Your task to perform on an android device: manage bookmarks in the chrome app Image 0: 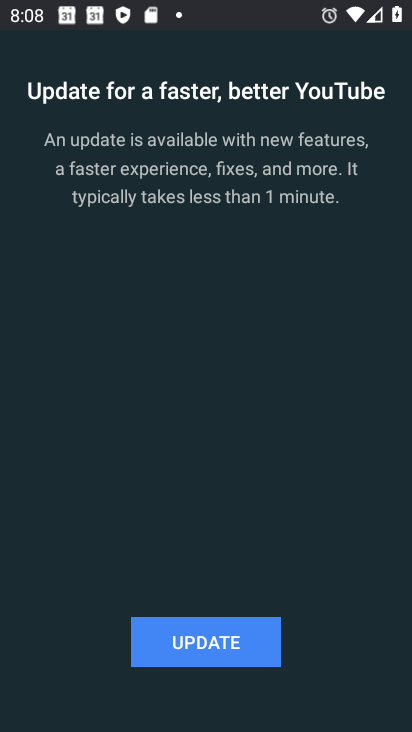
Step 0: press home button
Your task to perform on an android device: manage bookmarks in the chrome app Image 1: 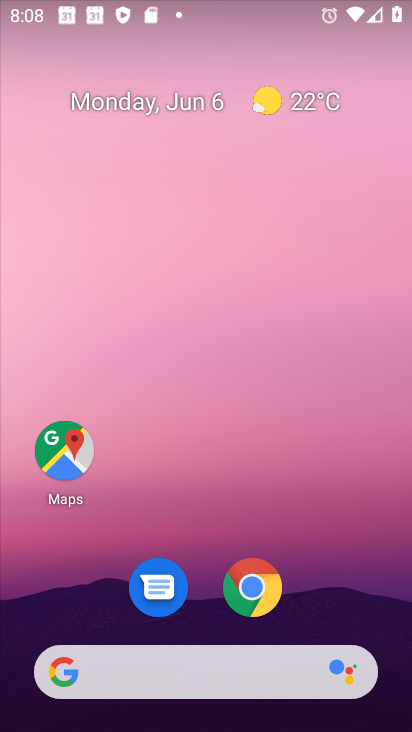
Step 1: click (244, 388)
Your task to perform on an android device: manage bookmarks in the chrome app Image 2: 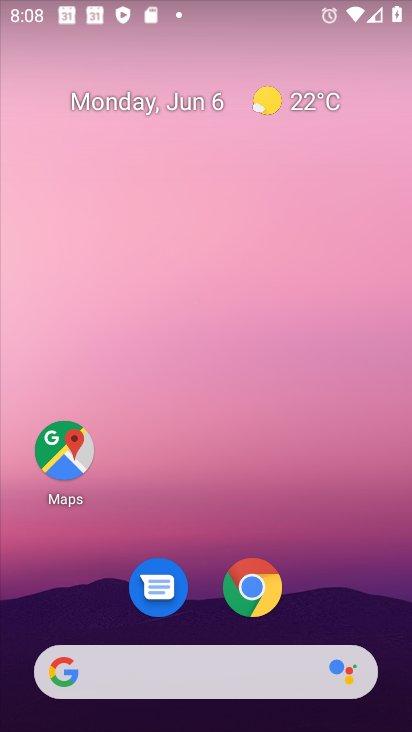
Step 2: drag from (201, 657) to (173, 232)
Your task to perform on an android device: manage bookmarks in the chrome app Image 3: 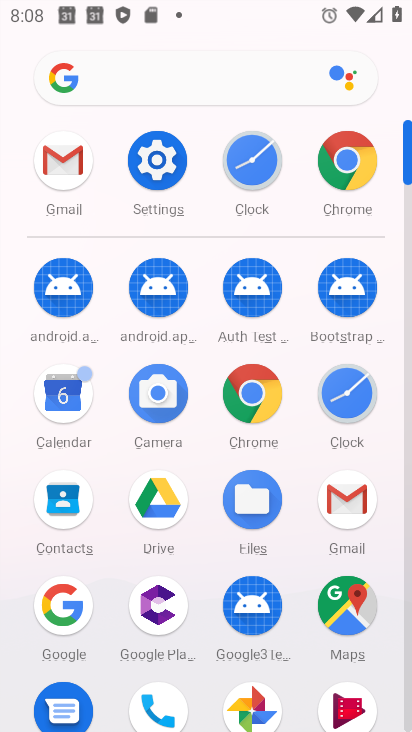
Step 3: click (257, 402)
Your task to perform on an android device: manage bookmarks in the chrome app Image 4: 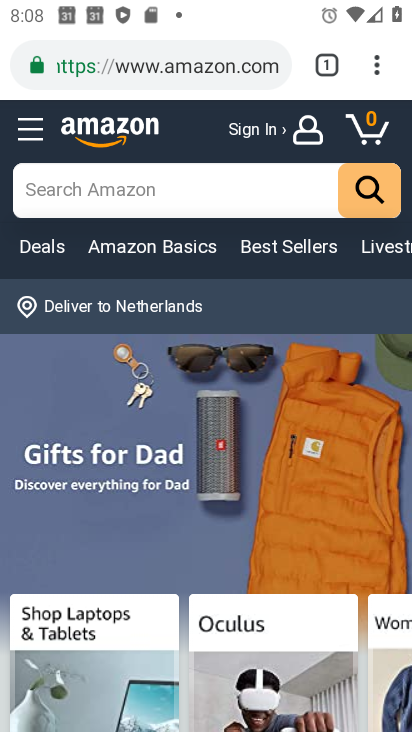
Step 4: click (379, 56)
Your task to perform on an android device: manage bookmarks in the chrome app Image 5: 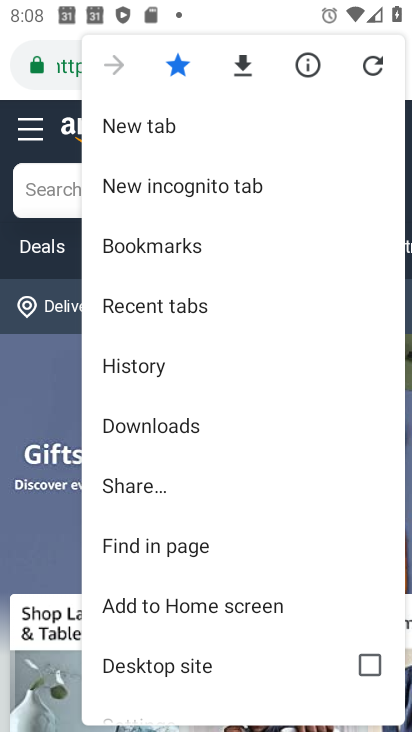
Step 5: click (119, 250)
Your task to perform on an android device: manage bookmarks in the chrome app Image 6: 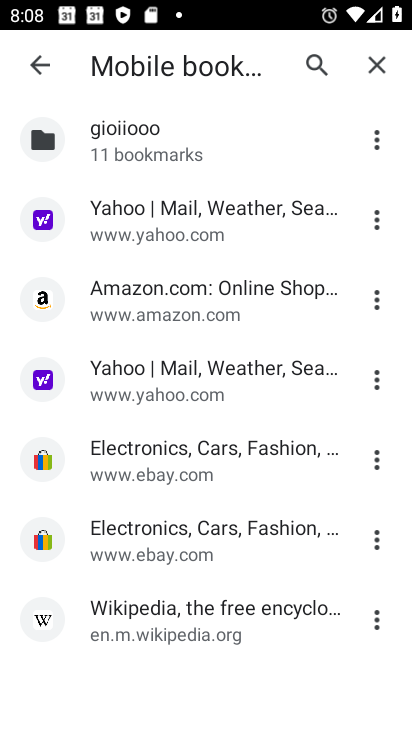
Step 6: click (155, 205)
Your task to perform on an android device: manage bookmarks in the chrome app Image 7: 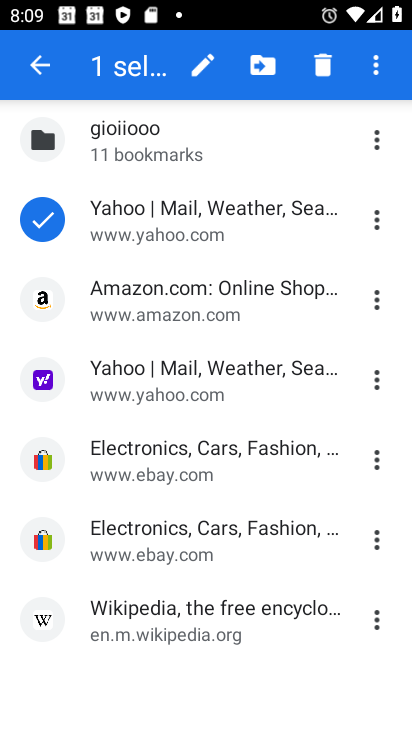
Step 7: click (325, 63)
Your task to perform on an android device: manage bookmarks in the chrome app Image 8: 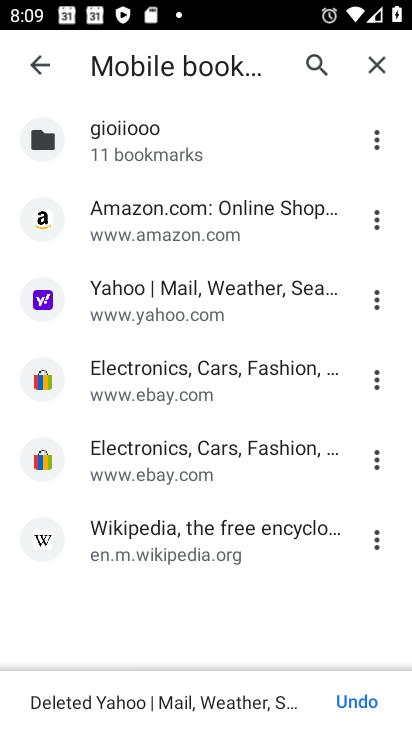
Step 8: drag from (190, 585) to (190, 283)
Your task to perform on an android device: manage bookmarks in the chrome app Image 9: 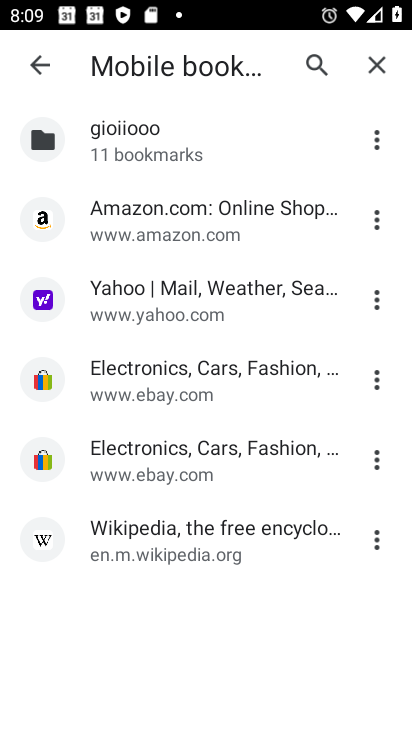
Step 9: click (161, 455)
Your task to perform on an android device: manage bookmarks in the chrome app Image 10: 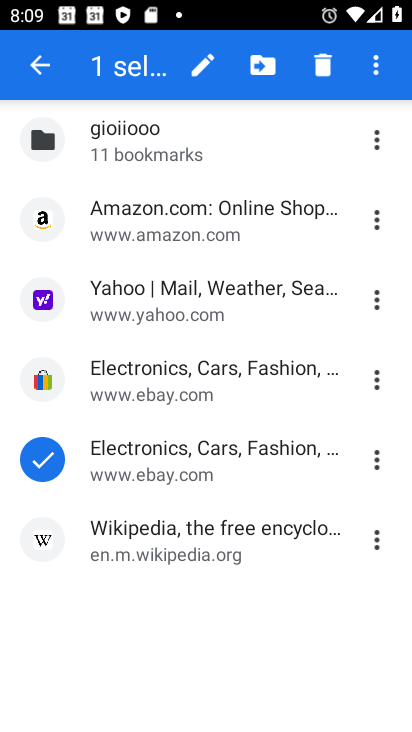
Step 10: click (314, 65)
Your task to perform on an android device: manage bookmarks in the chrome app Image 11: 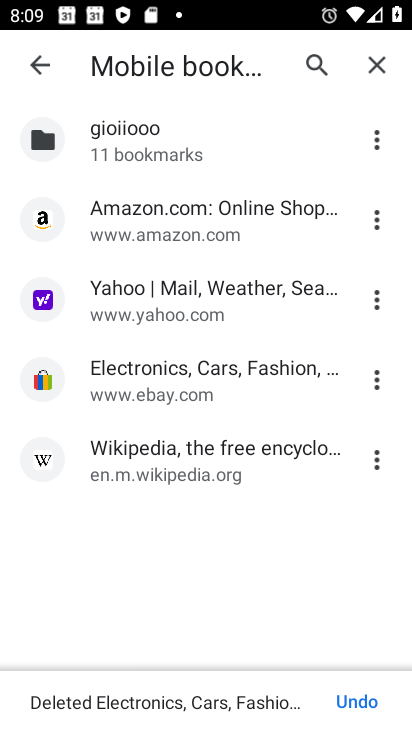
Step 11: task complete